Your task to perform on an android device: Go to accessibility settings Image 0: 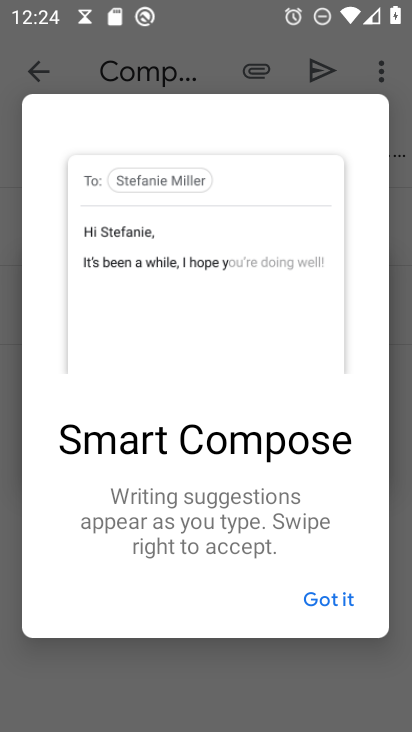
Step 0: press home button
Your task to perform on an android device: Go to accessibility settings Image 1: 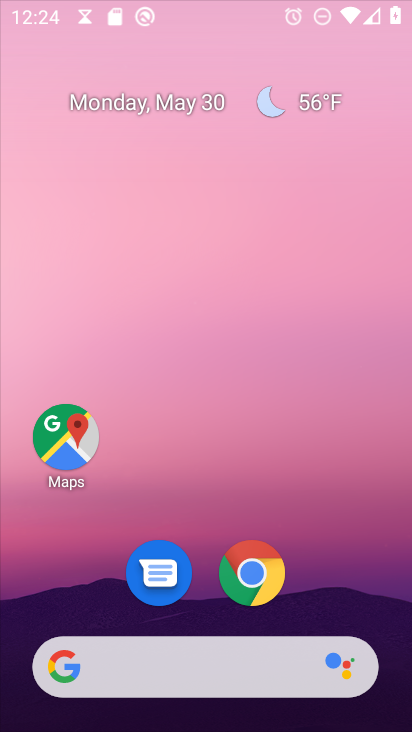
Step 1: drag from (324, 677) to (353, 7)
Your task to perform on an android device: Go to accessibility settings Image 2: 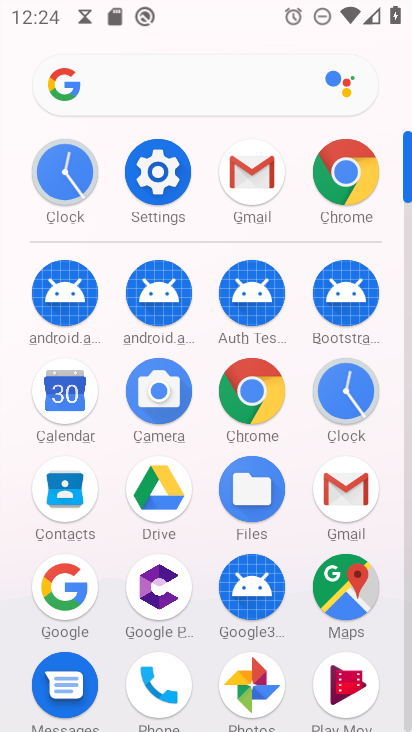
Step 2: click (157, 183)
Your task to perform on an android device: Go to accessibility settings Image 3: 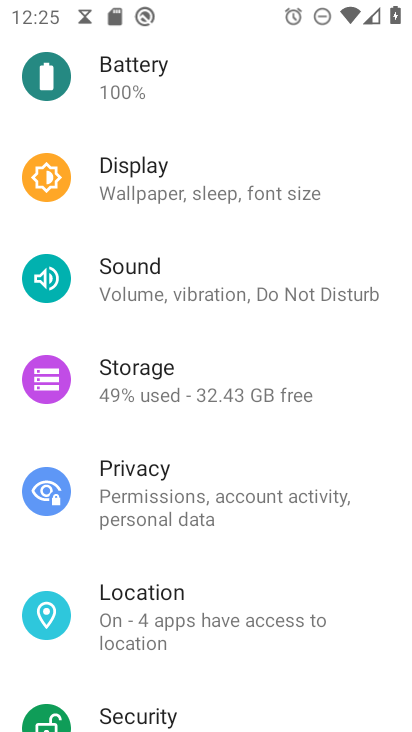
Step 3: drag from (213, 202) to (355, 7)
Your task to perform on an android device: Go to accessibility settings Image 4: 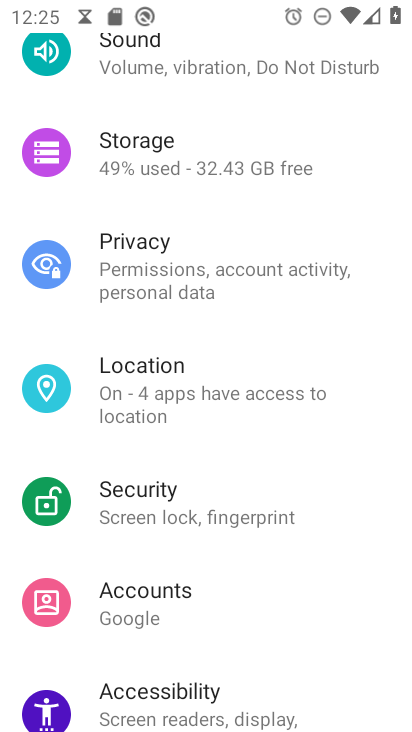
Step 4: click (214, 687)
Your task to perform on an android device: Go to accessibility settings Image 5: 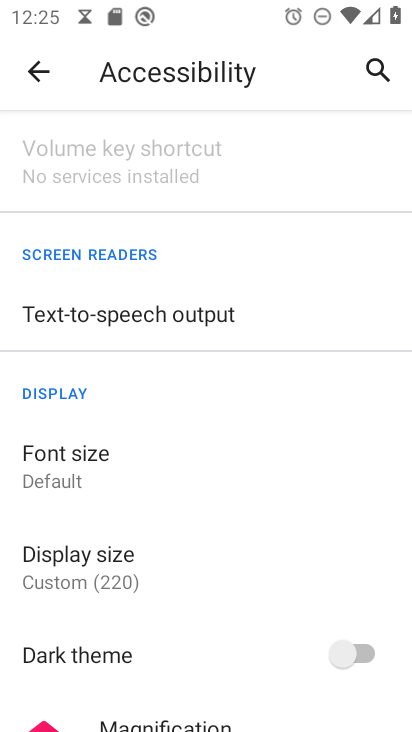
Step 5: task complete